Your task to perform on an android device: Go to display settings Image 0: 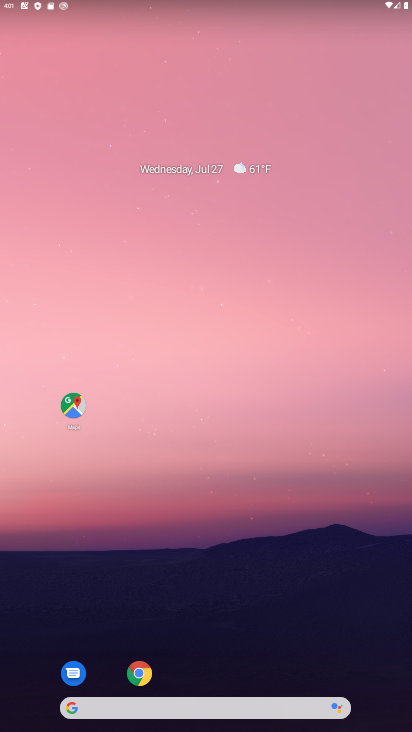
Step 0: drag from (303, 558) to (411, 159)
Your task to perform on an android device: Go to display settings Image 1: 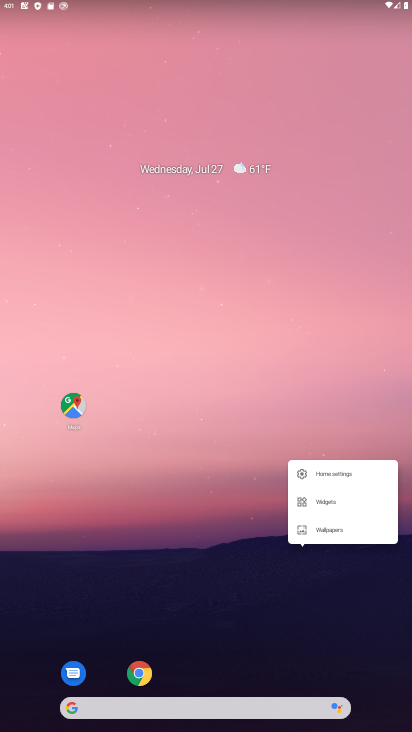
Step 1: drag from (116, 611) to (358, 136)
Your task to perform on an android device: Go to display settings Image 2: 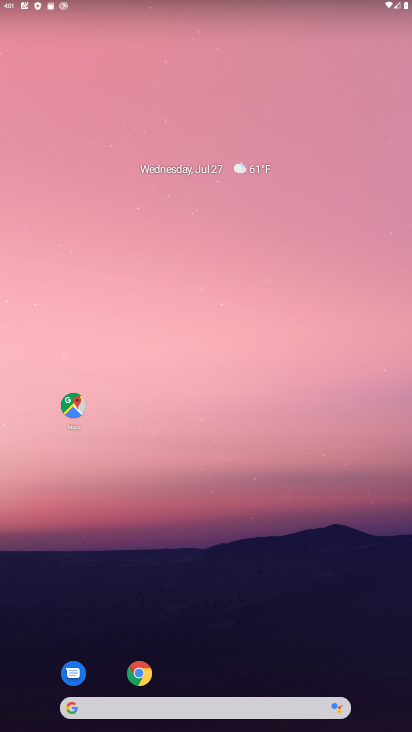
Step 2: drag from (258, 637) to (354, 366)
Your task to perform on an android device: Go to display settings Image 3: 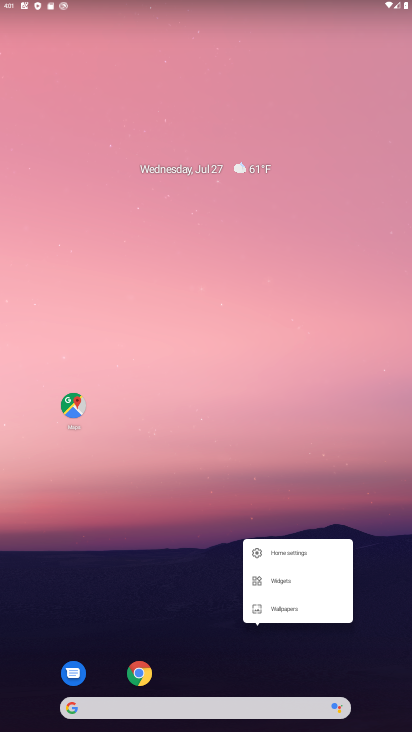
Step 3: drag from (172, 664) to (316, 40)
Your task to perform on an android device: Go to display settings Image 4: 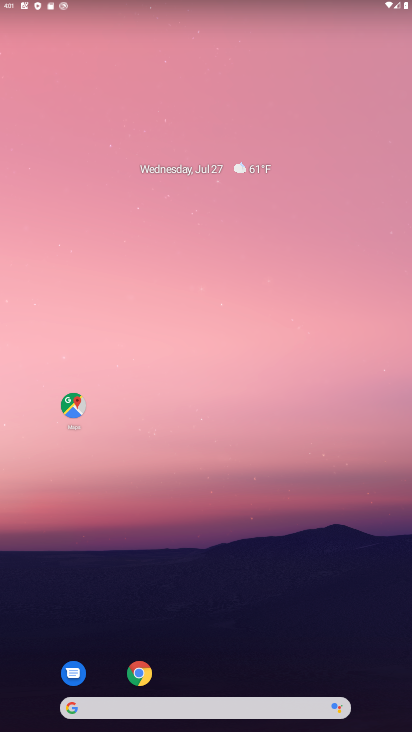
Step 4: drag from (323, 637) to (192, 146)
Your task to perform on an android device: Go to display settings Image 5: 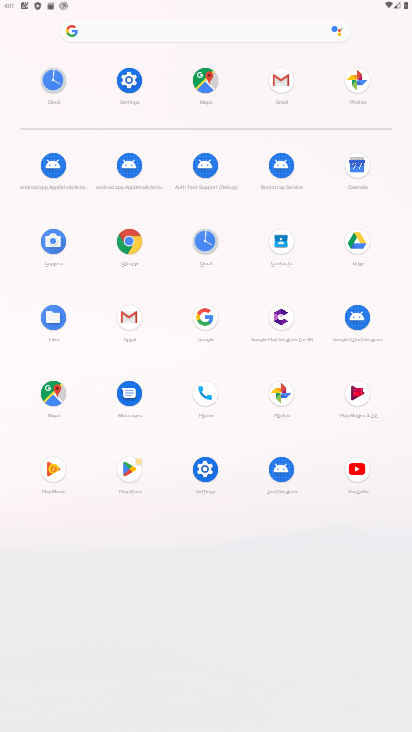
Step 5: click (206, 463)
Your task to perform on an android device: Go to display settings Image 6: 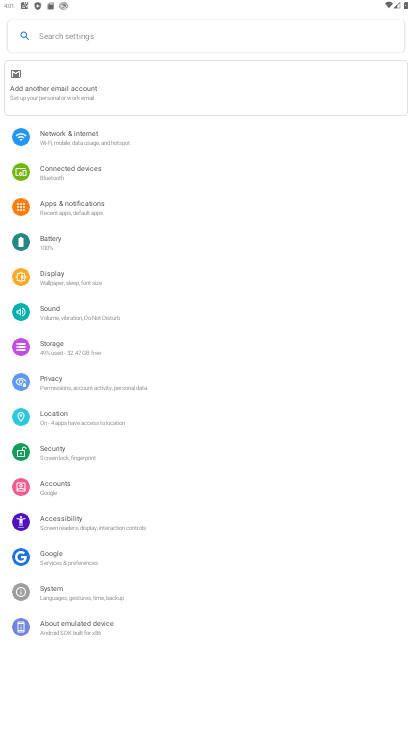
Step 6: click (97, 276)
Your task to perform on an android device: Go to display settings Image 7: 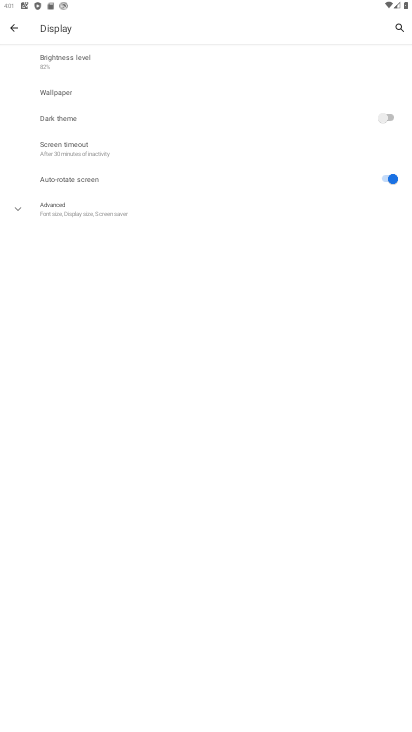
Step 7: task complete